Your task to perform on an android device: Open ESPN.com Image 0: 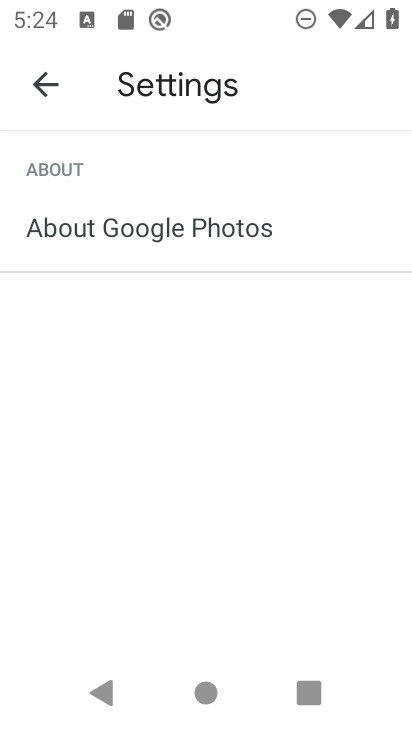
Step 0: press home button
Your task to perform on an android device: Open ESPN.com Image 1: 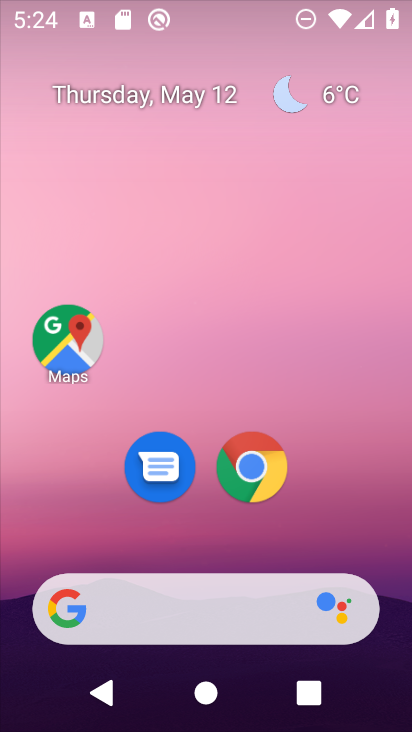
Step 1: drag from (254, 651) to (369, 17)
Your task to perform on an android device: Open ESPN.com Image 2: 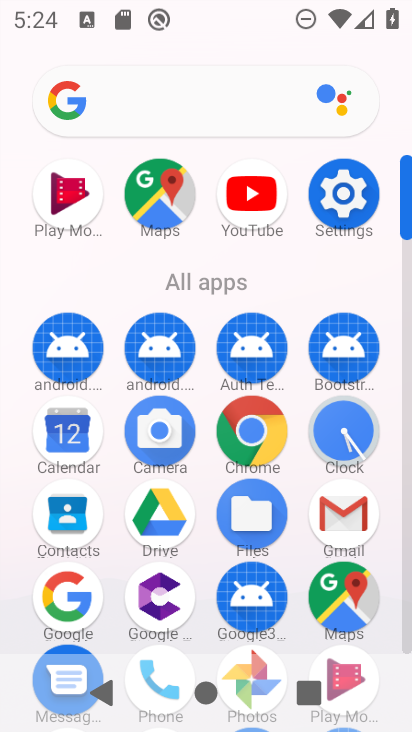
Step 2: click (271, 441)
Your task to perform on an android device: Open ESPN.com Image 3: 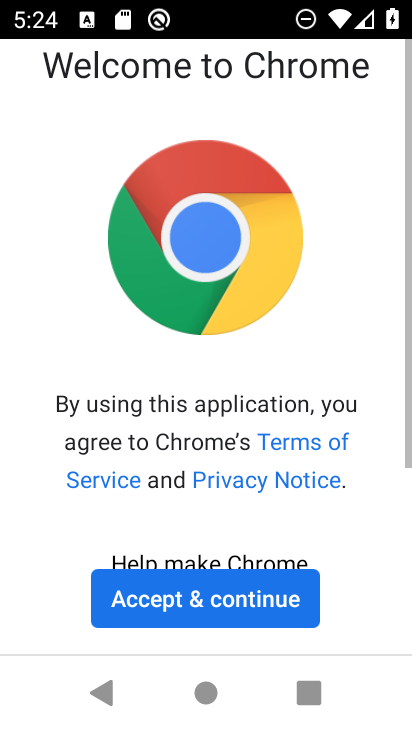
Step 3: click (237, 619)
Your task to perform on an android device: Open ESPN.com Image 4: 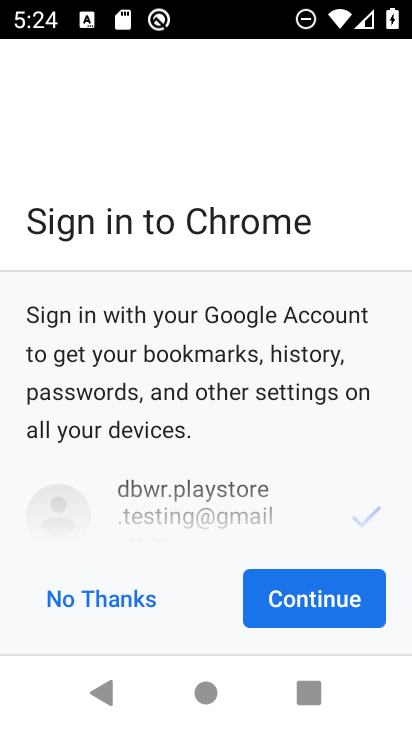
Step 4: click (158, 609)
Your task to perform on an android device: Open ESPN.com Image 5: 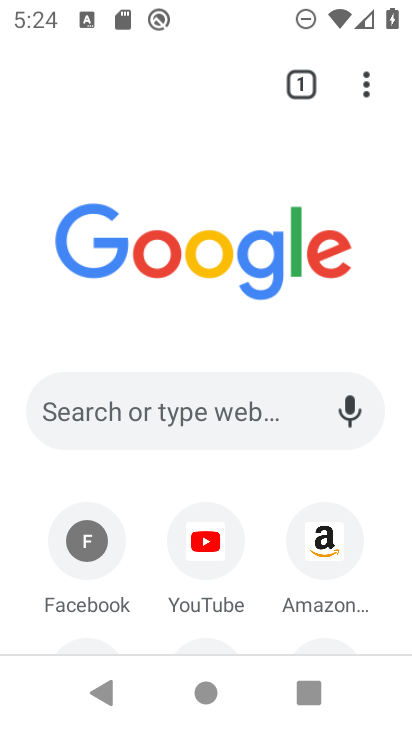
Step 5: click (186, 434)
Your task to perform on an android device: Open ESPN.com Image 6: 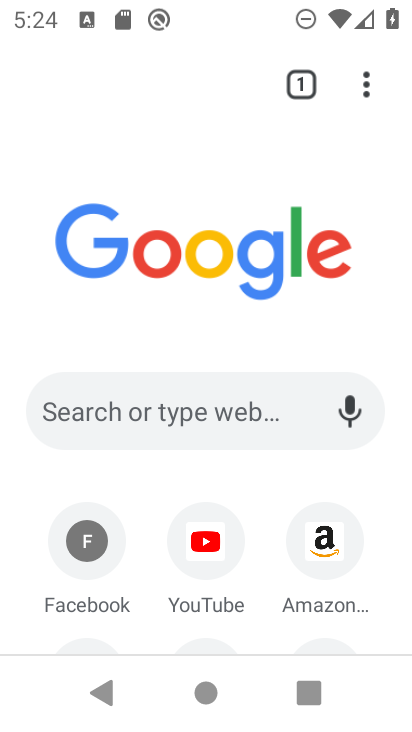
Step 6: click (195, 422)
Your task to perform on an android device: Open ESPN.com Image 7: 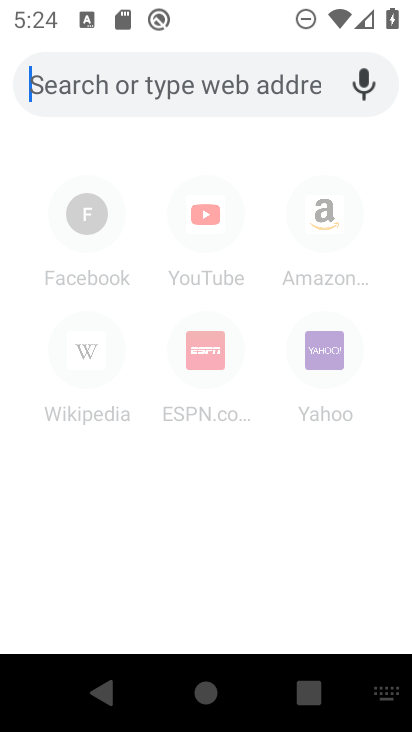
Step 7: type "espn.com"
Your task to perform on an android device: Open ESPN.com Image 8: 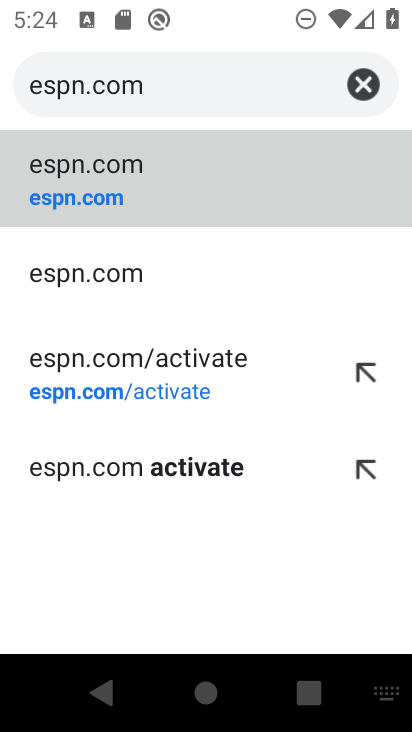
Step 8: click (251, 179)
Your task to perform on an android device: Open ESPN.com Image 9: 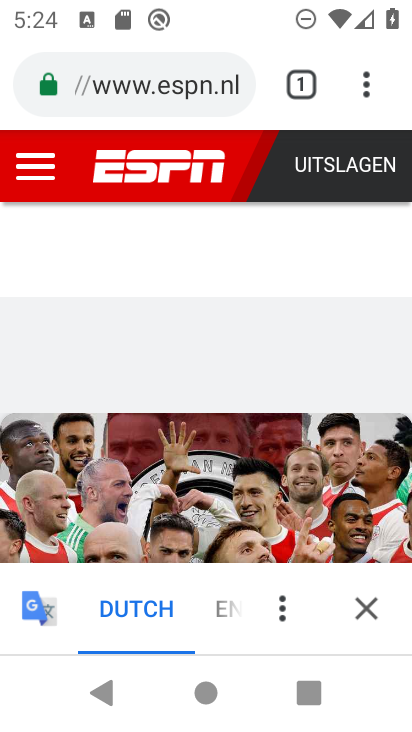
Step 9: task complete